Your task to perform on an android device: Open settings on Google Maps Image 0: 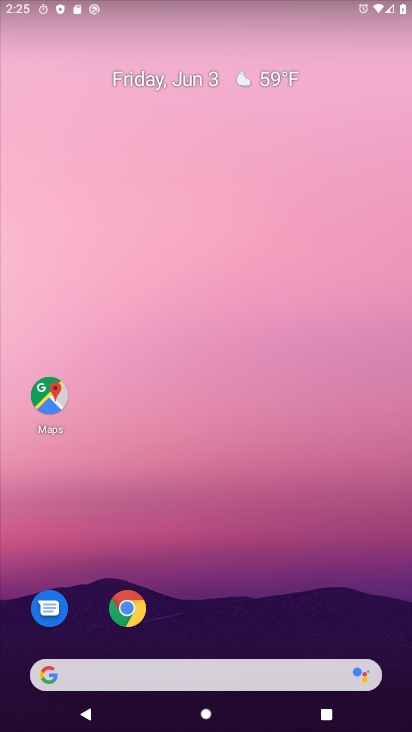
Step 0: click (54, 399)
Your task to perform on an android device: Open settings on Google Maps Image 1: 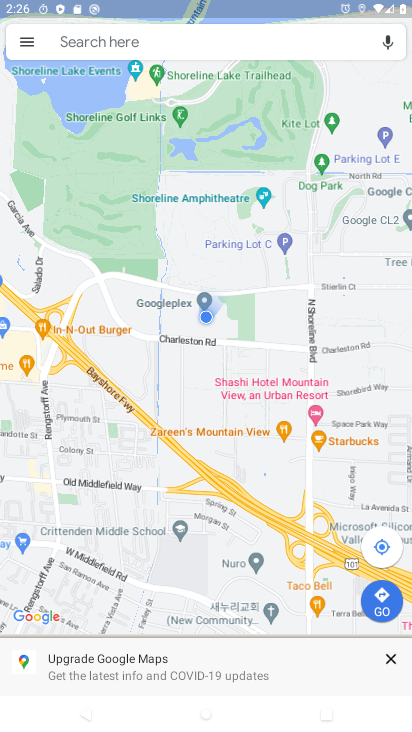
Step 1: click (32, 43)
Your task to perform on an android device: Open settings on Google Maps Image 2: 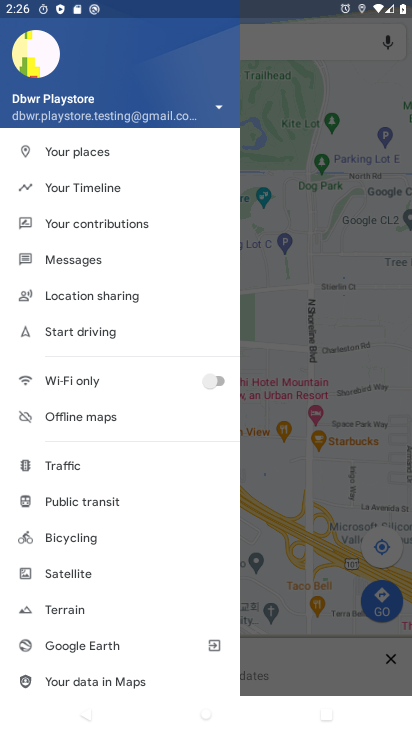
Step 2: drag from (95, 600) to (104, 288)
Your task to perform on an android device: Open settings on Google Maps Image 3: 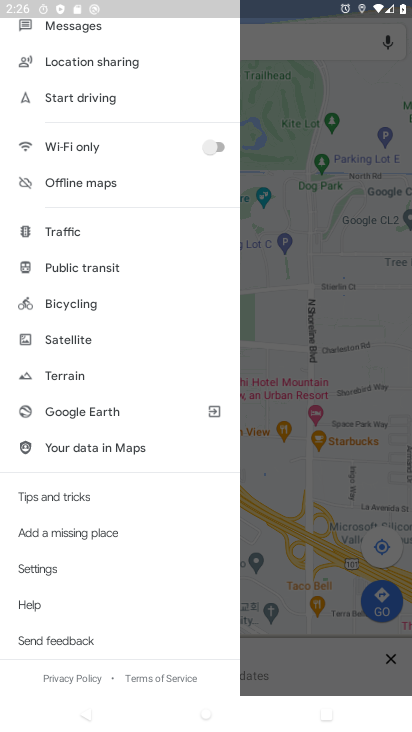
Step 3: click (91, 560)
Your task to perform on an android device: Open settings on Google Maps Image 4: 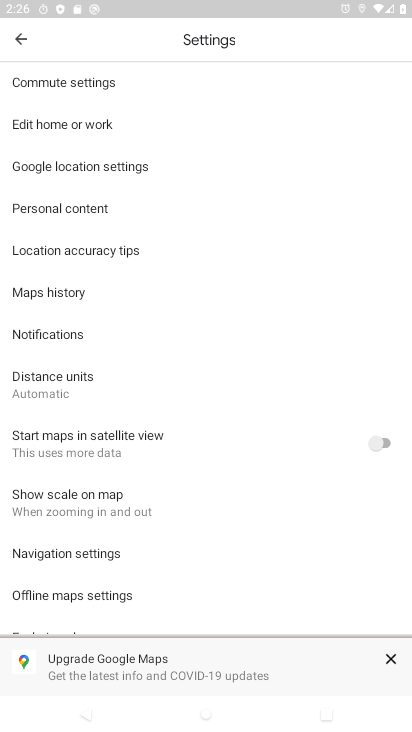
Step 4: task complete